Your task to perform on an android device: clear all cookies in the chrome app Image 0: 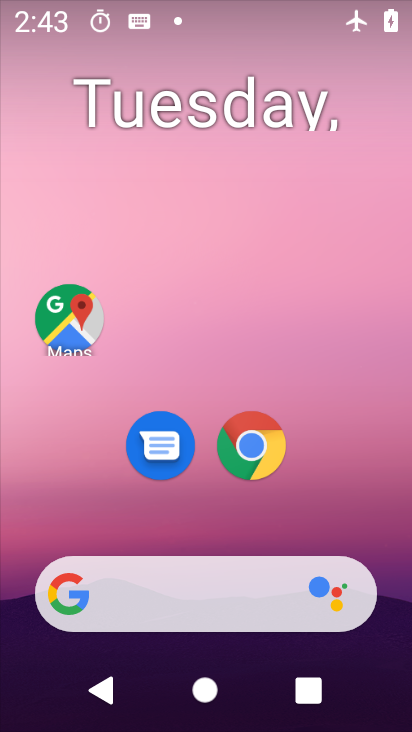
Step 0: click (254, 443)
Your task to perform on an android device: clear all cookies in the chrome app Image 1: 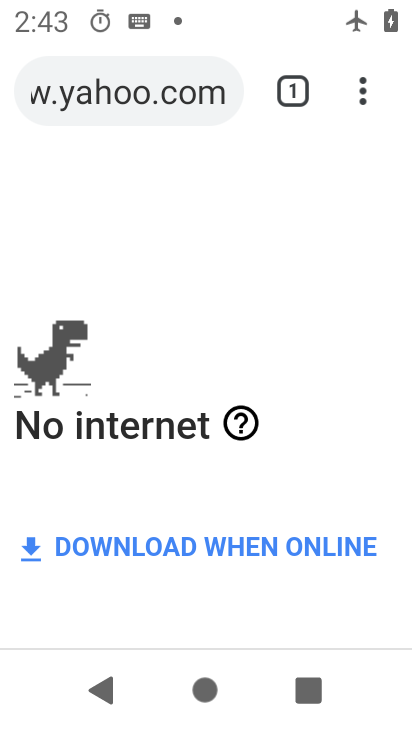
Step 1: click (362, 93)
Your task to perform on an android device: clear all cookies in the chrome app Image 2: 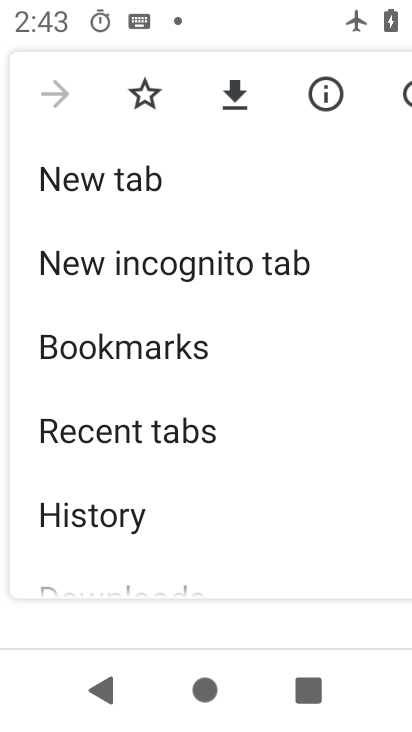
Step 2: click (117, 505)
Your task to perform on an android device: clear all cookies in the chrome app Image 3: 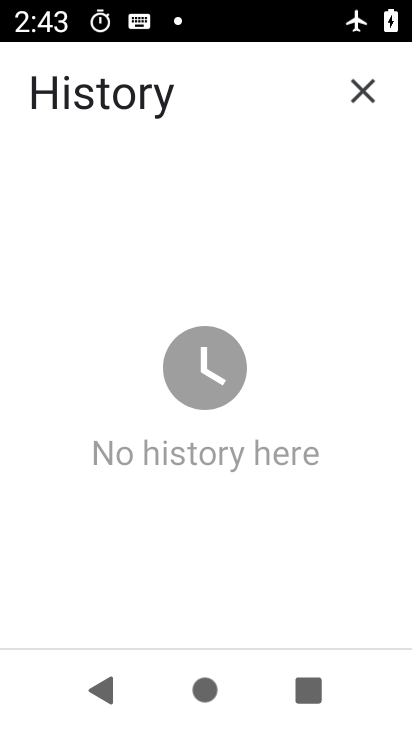
Step 3: task complete